Your task to perform on an android device: check data usage Image 0: 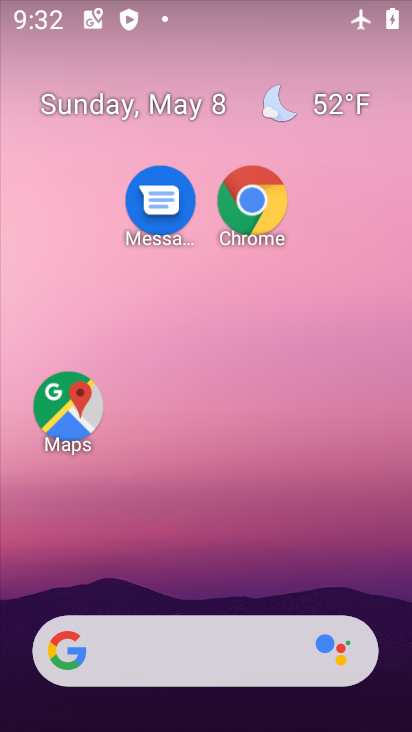
Step 0: drag from (176, 615) to (207, 0)
Your task to perform on an android device: check data usage Image 1: 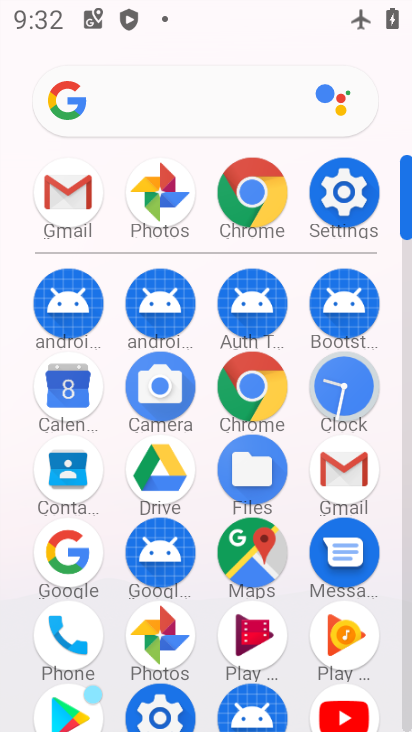
Step 1: click (339, 198)
Your task to perform on an android device: check data usage Image 2: 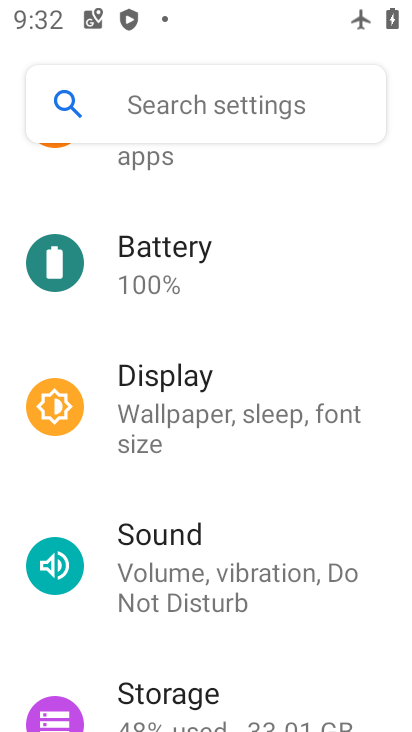
Step 2: drag from (234, 587) to (165, 716)
Your task to perform on an android device: check data usage Image 3: 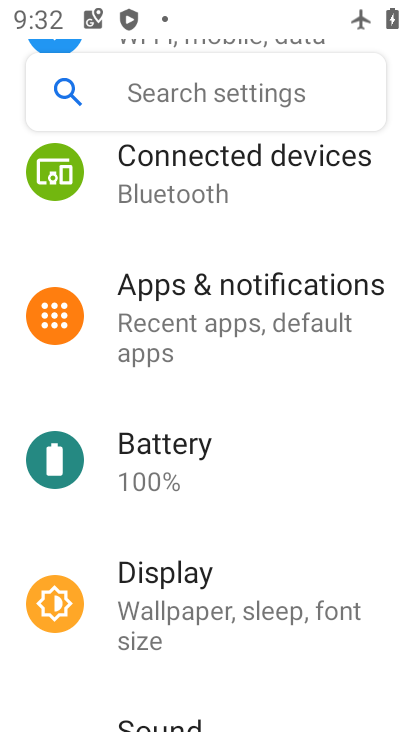
Step 3: drag from (220, 201) to (211, 726)
Your task to perform on an android device: check data usage Image 4: 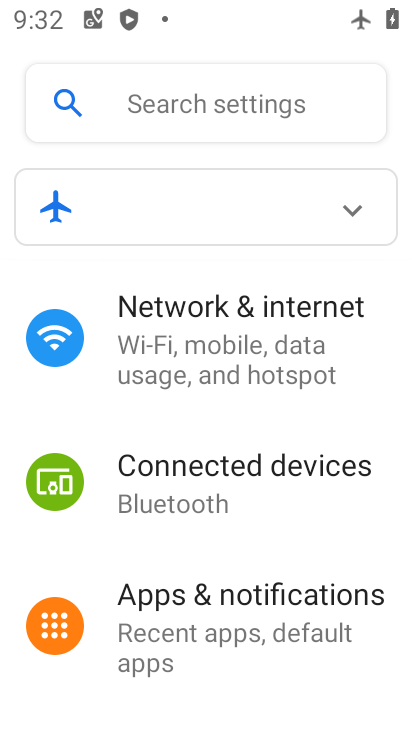
Step 4: click (224, 374)
Your task to perform on an android device: check data usage Image 5: 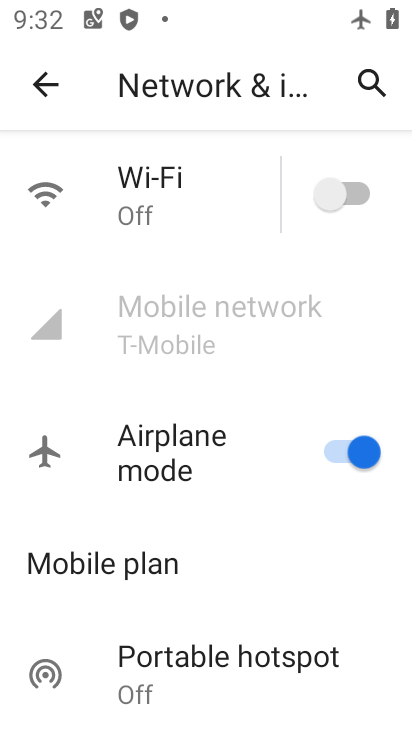
Step 5: drag from (239, 612) to (207, 227)
Your task to perform on an android device: check data usage Image 6: 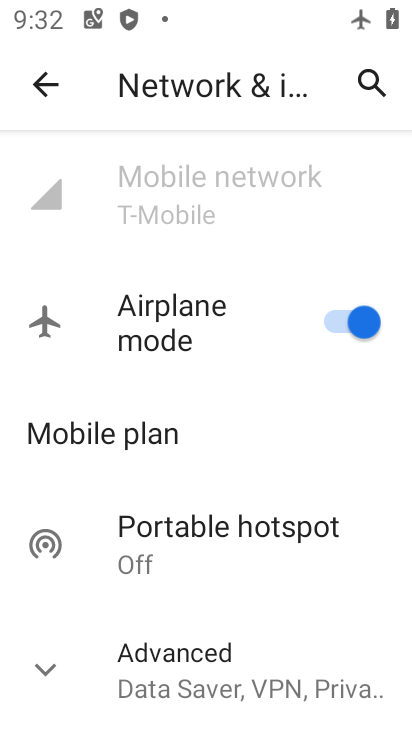
Step 6: click (208, 665)
Your task to perform on an android device: check data usage Image 7: 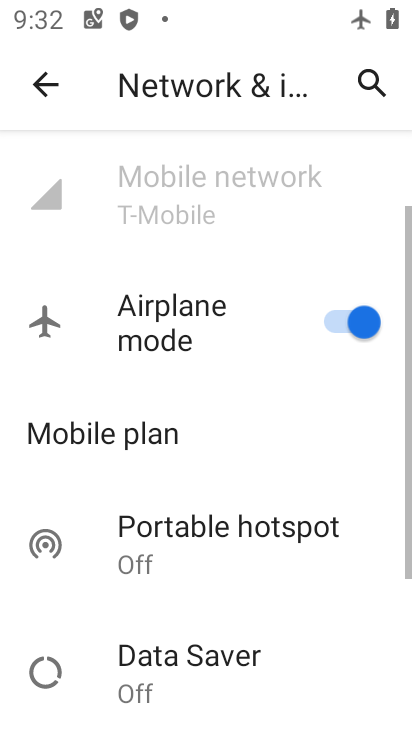
Step 7: task complete